Your task to perform on an android device: turn off airplane mode Image 0: 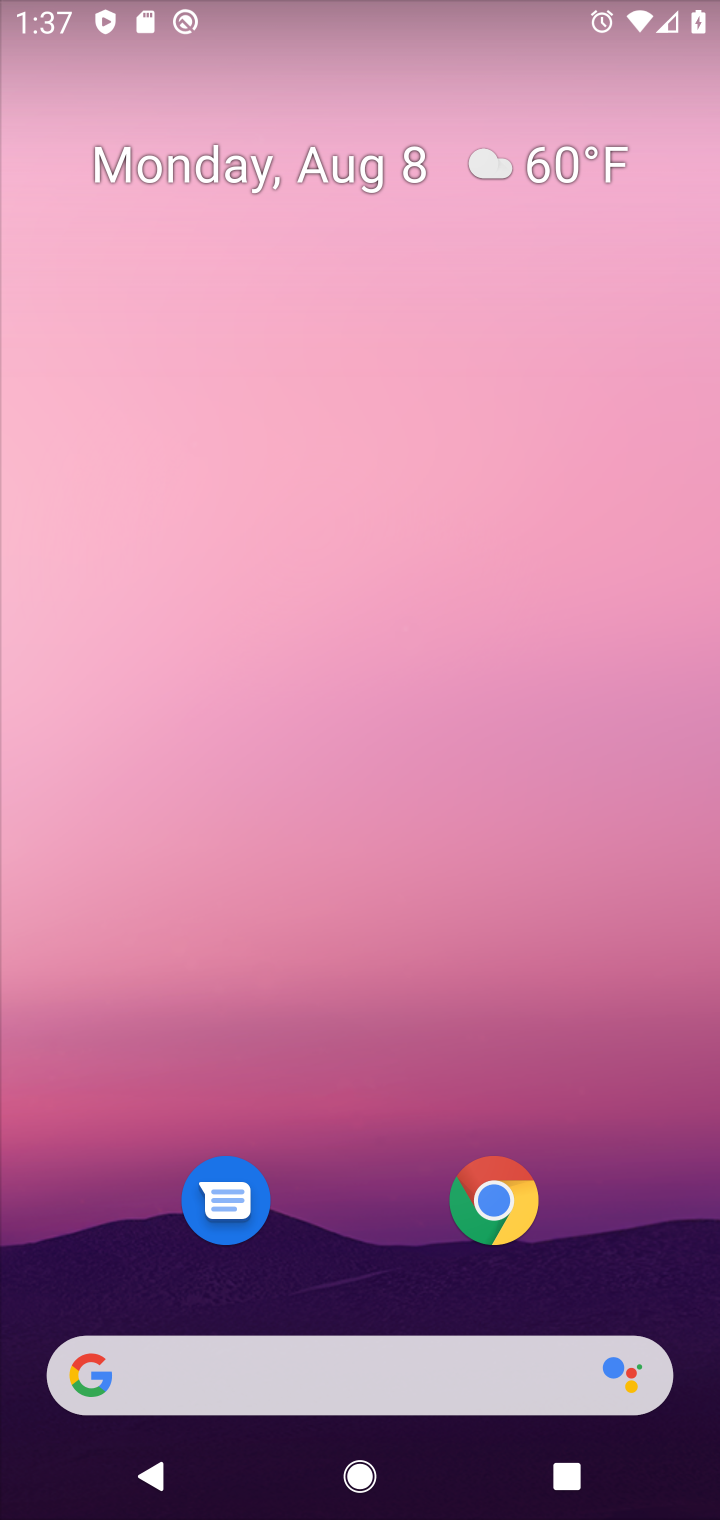
Step 0: drag from (424, 26) to (374, 1373)
Your task to perform on an android device: turn off airplane mode Image 1: 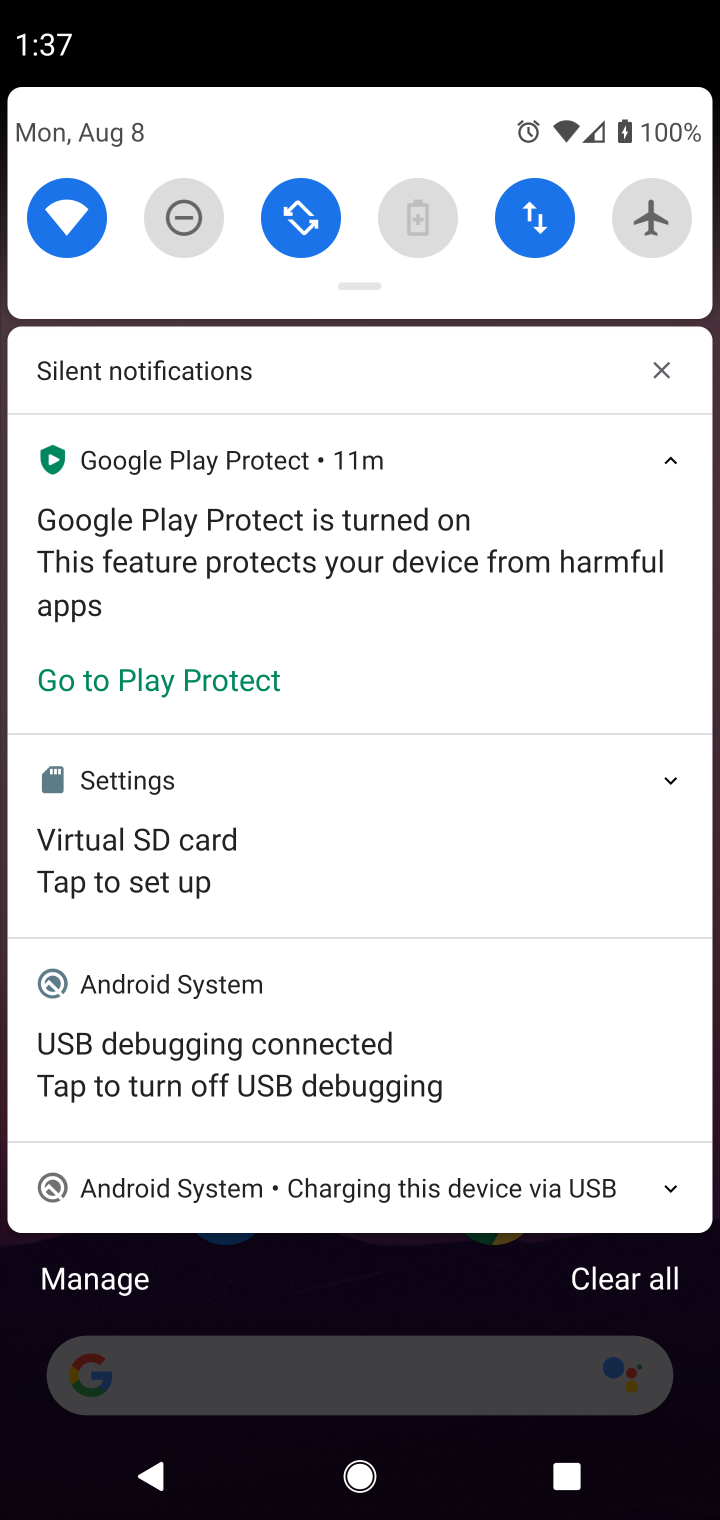
Step 1: task complete